Your task to perform on an android device: toggle pop-ups in chrome Image 0: 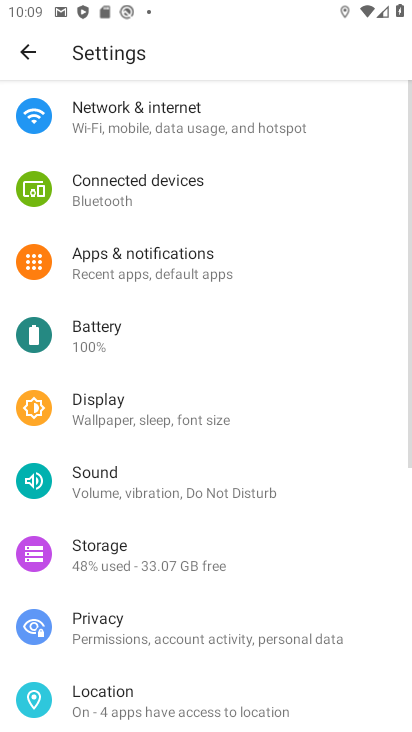
Step 0: press home button
Your task to perform on an android device: toggle pop-ups in chrome Image 1: 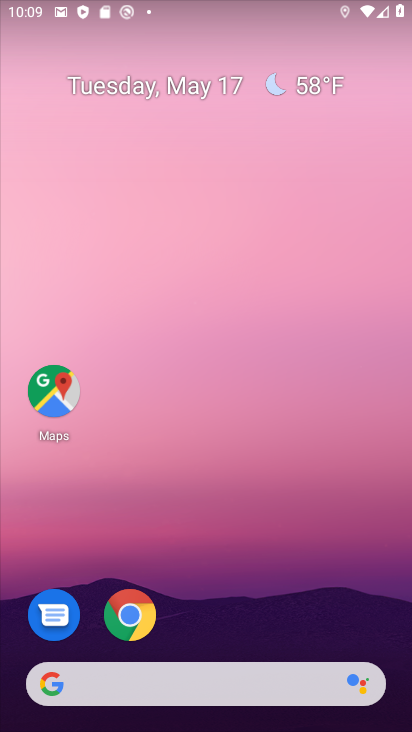
Step 1: click (132, 608)
Your task to perform on an android device: toggle pop-ups in chrome Image 2: 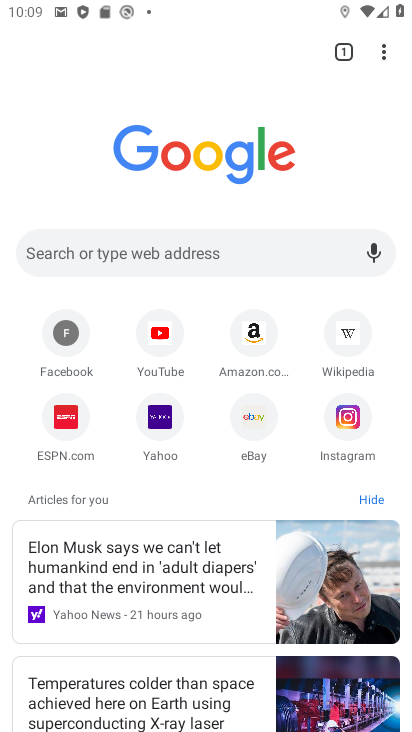
Step 2: drag from (381, 59) to (196, 439)
Your task to perform on an android device: toggle pop-ups in chrome Image 3: 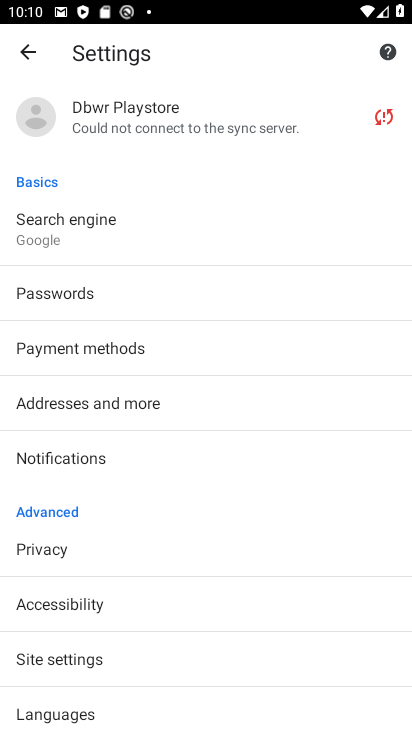
Step 3: drag from (160, 680) to (180, 597)
Your task to perform on an android device: toggle pop-ups in chrome Image 4: 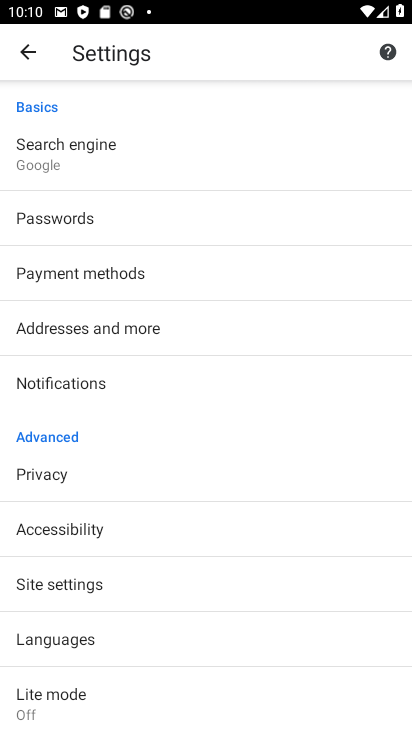
Step 4: click (154, 585)
Your task to perform on an android device: toggle pop-ups in chrome Image 5: 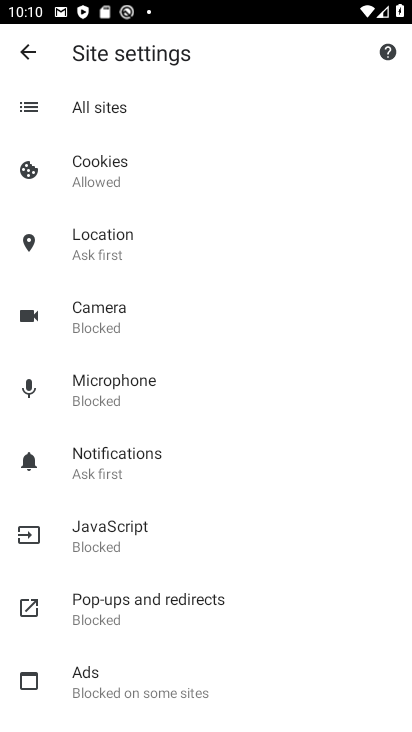
Step 5: click (159, 616)
Your task to perform on an android device: toggle pop-ups in chrome Image 6: 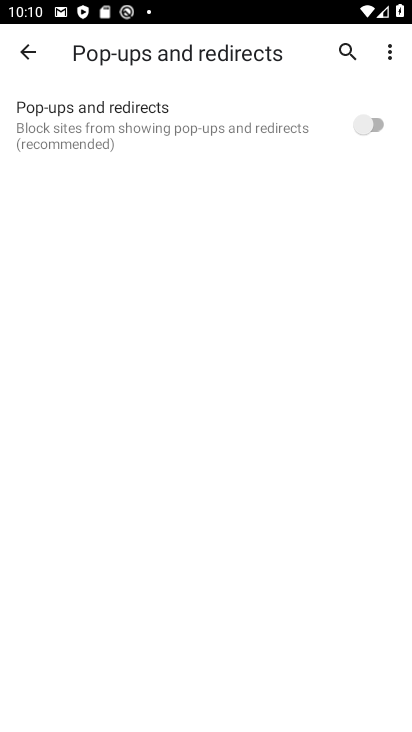
Step 6: click (375, 122)
Your task to perform on an android device: toggle pop-ups in chrome Image 7: 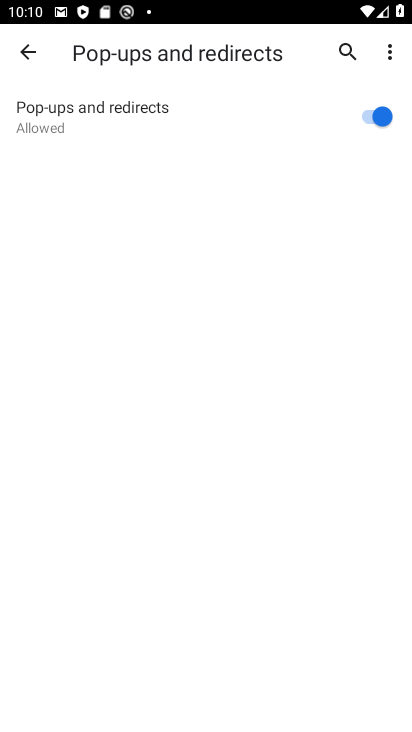
Step 7: task complete